Your task to perform on an android device: Open settings on Google Maps Image 0: 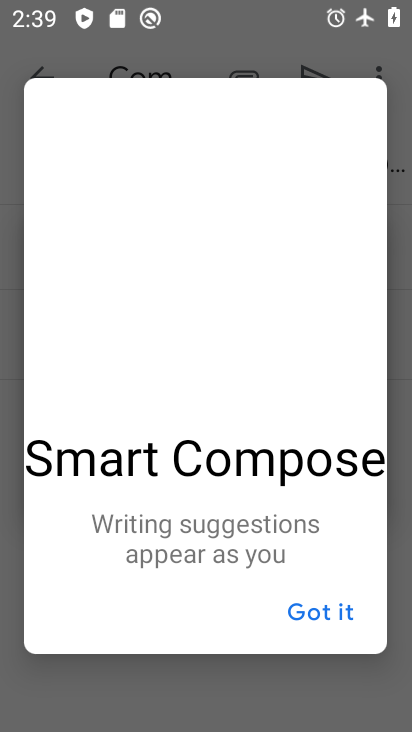
Step 0: press home button
Your task to perform on an android device: Open settings on Google Maps Image 1: 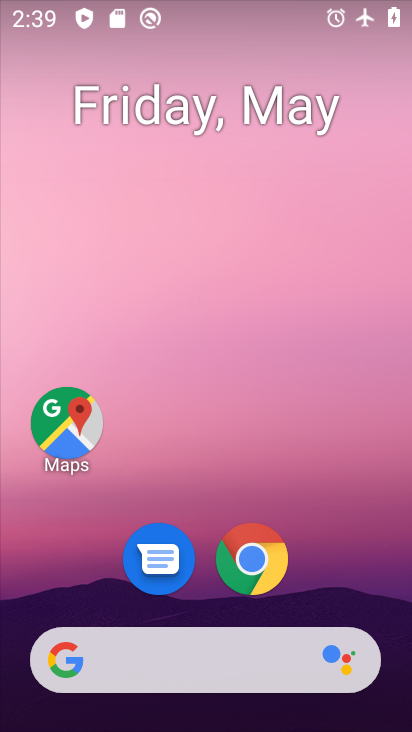
Step 1: click (65, 427)
Your task to perform on an android device: Open settings on Google Maps Image 2: 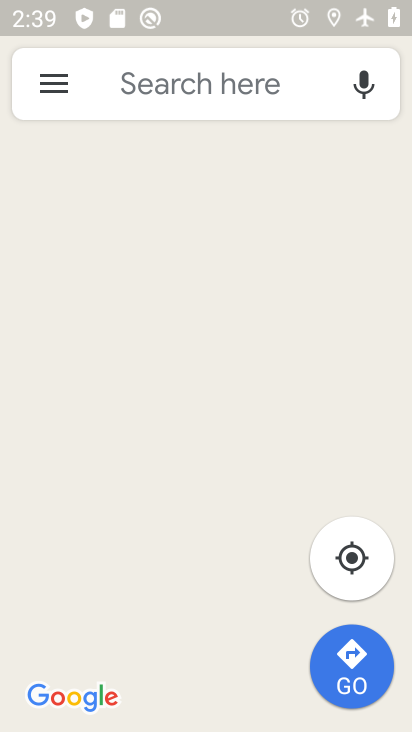
Step 2: click (40, 85)
Your task to perform on an android device: Open settings on Google Maps Image 3: 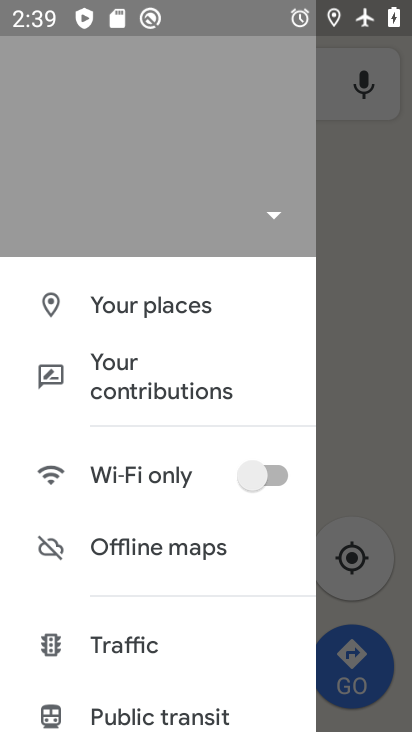
Step 3: drag from (66, 606) to (137, 221)
Your task to perform on an android device: Open settings on Google Maps Image 4: 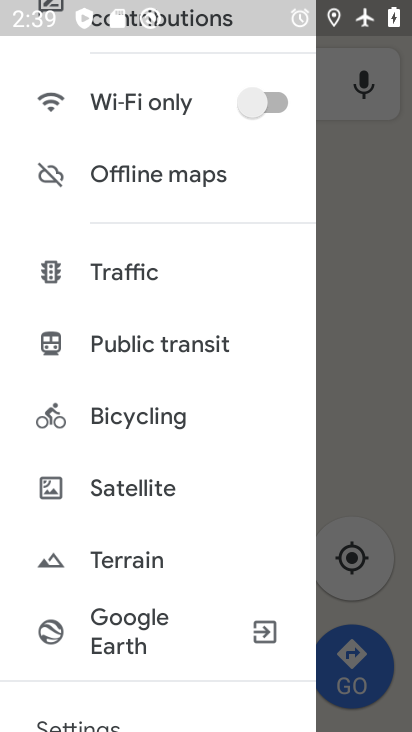
Step 4: drag from (116, 573) to (129, 297)
Your task to perform on an android device: Open settings on Google Maps Image 5: 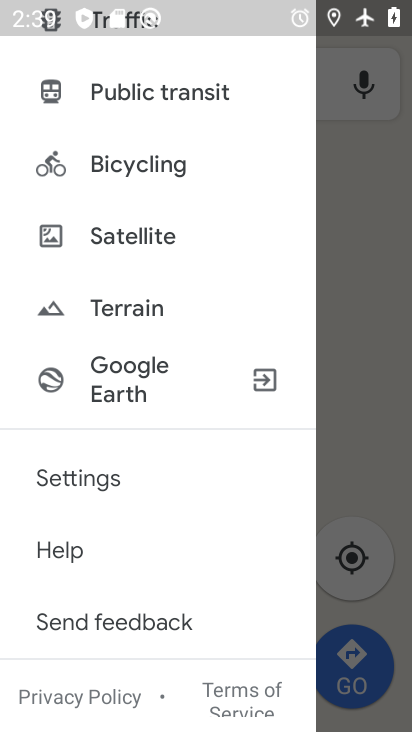
Step 5: click (145, 485)
Your task to perform on an android device: Open settings on Google Maps Image 6: 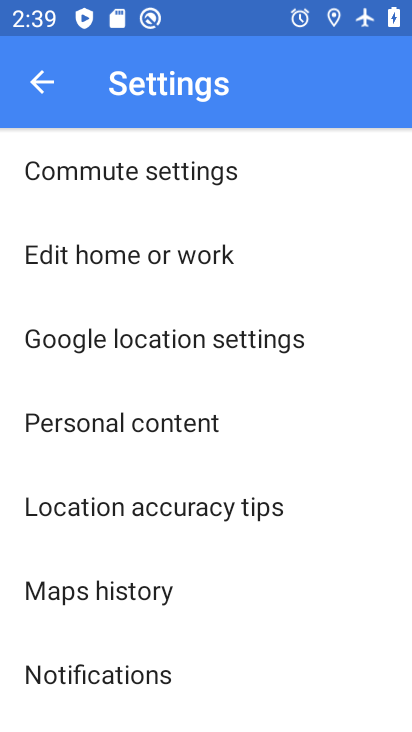
Step 6: task complete